Your task to perform on an android device: Open Wikipedia Image 0: 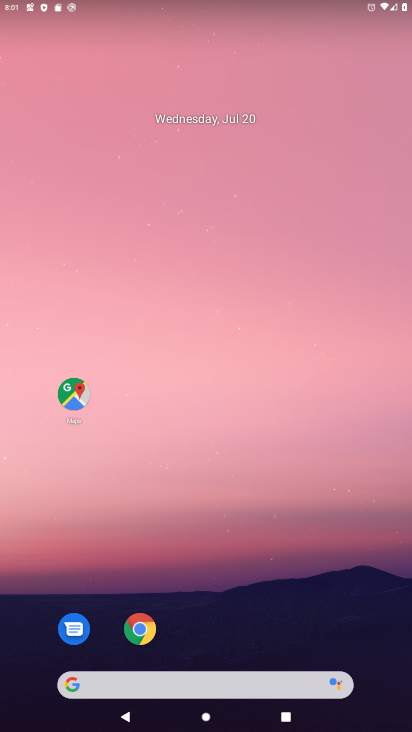
Step 0: click (137, 634)
Your task to perform on an android device: Open Wikipedia Image 1: 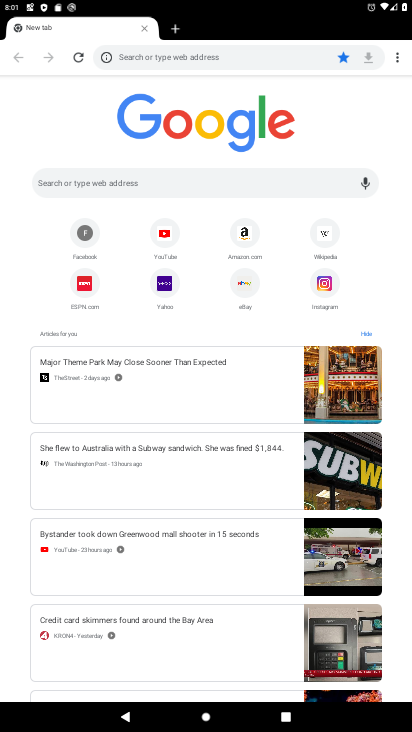
Step 1: click (322, 237)
Your task to perform on an android device: Open Wikipedia Image 2: 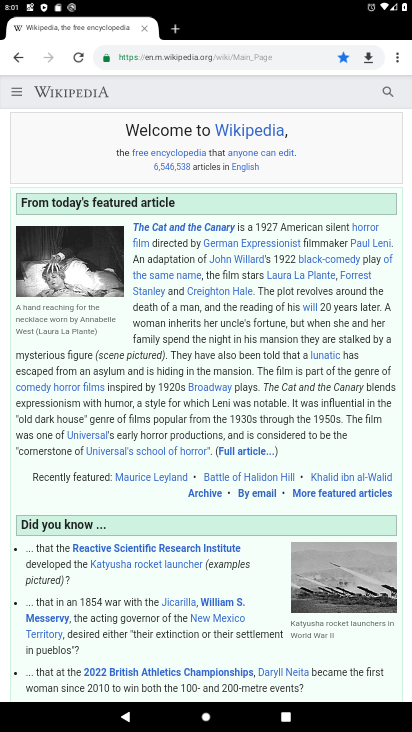
Step 2: task complete